Your task to perform on an android device: open app "Google Calendar" (install if not already installed) Image 0: 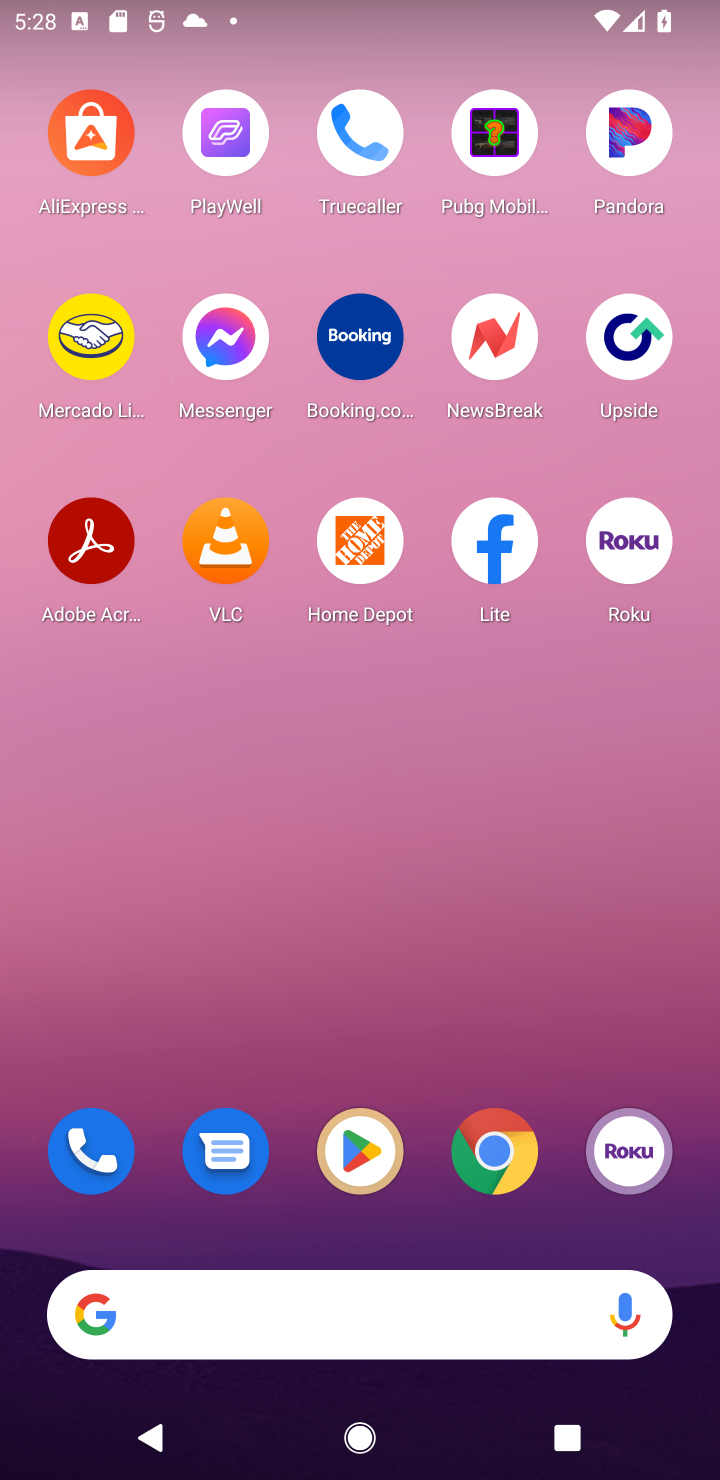
Step 0: press home button
Your task to perform on an android device: open app "Google Calendar" (install if not already installed) Image 1: 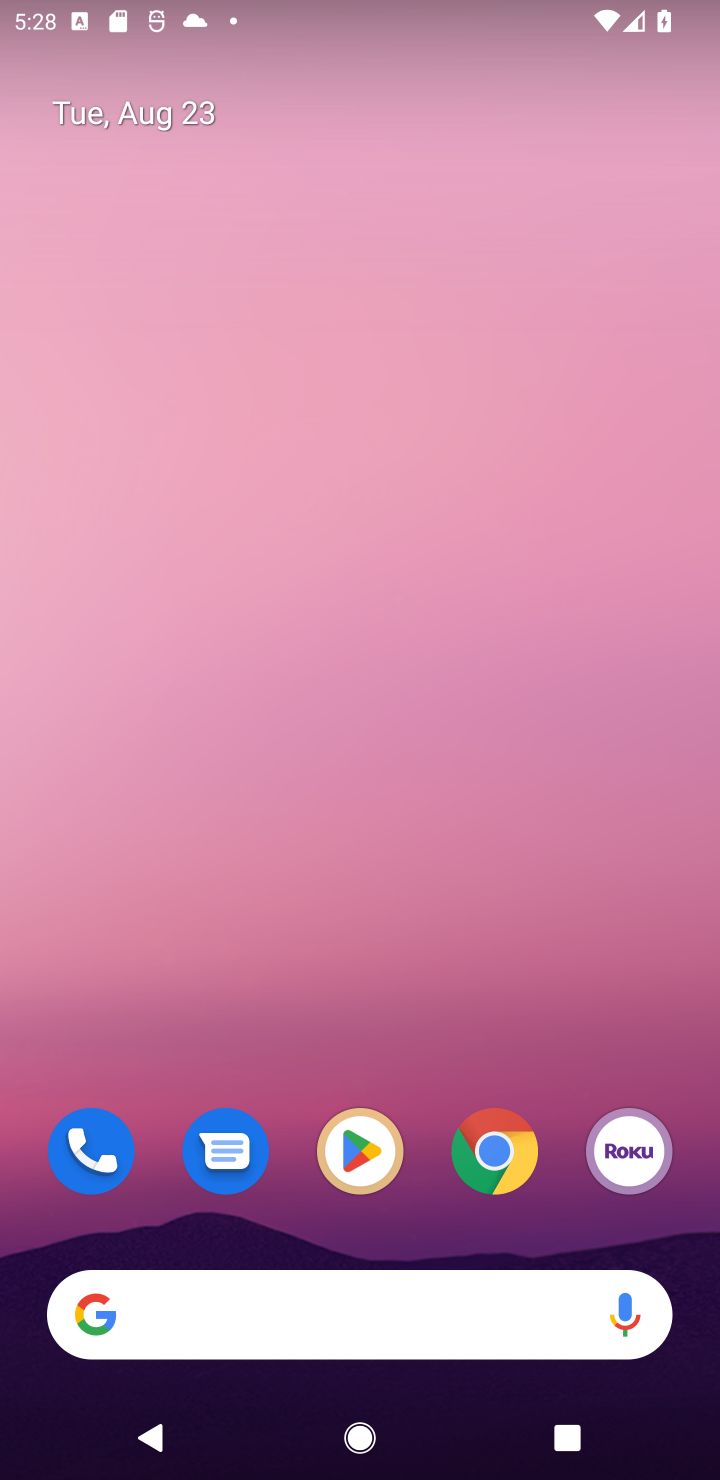
Step 1: click (358, 1148)
Your task to perform on an android device: open app "Google Calendar" (install if not already installed) Image 2: 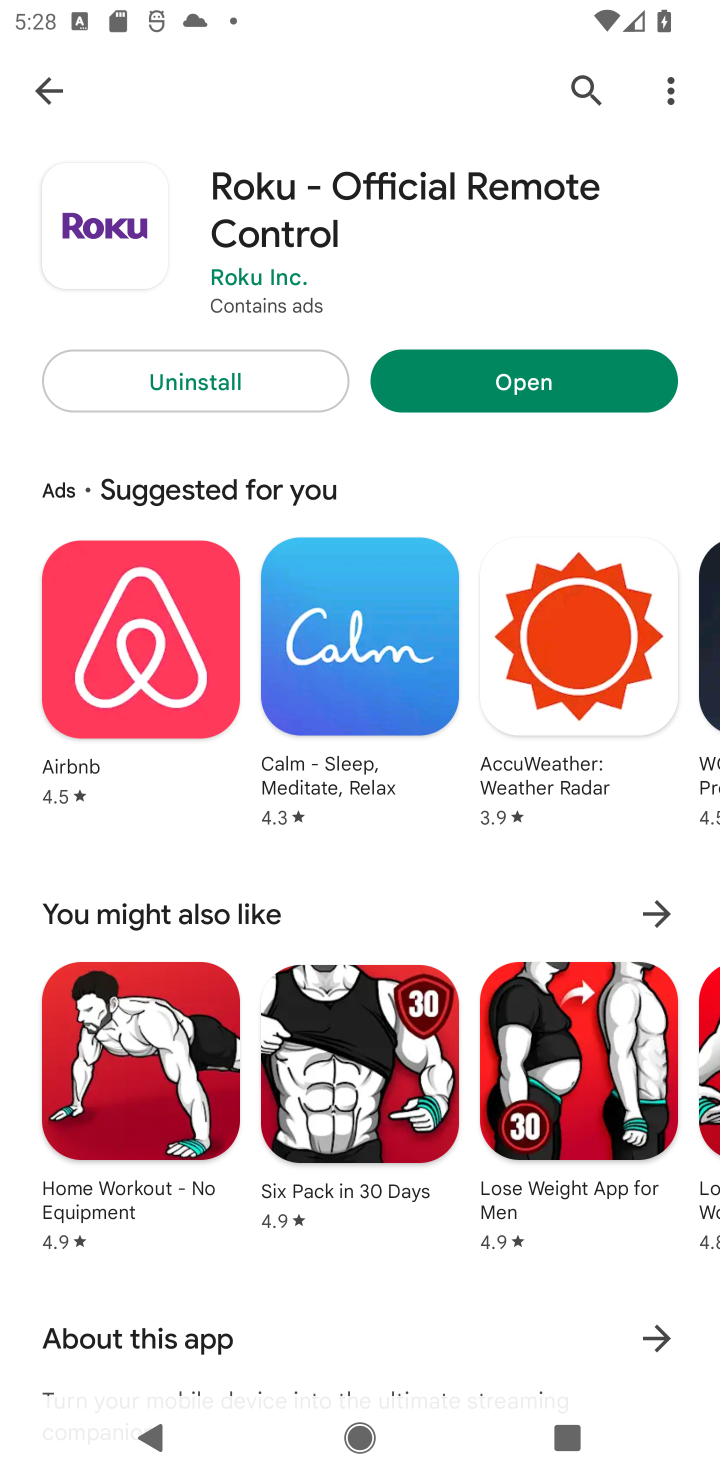
Step 2: click (579, 62)
Your task to perform on an android device: open app "Google Calendar" (install if not already installed) Image 3: 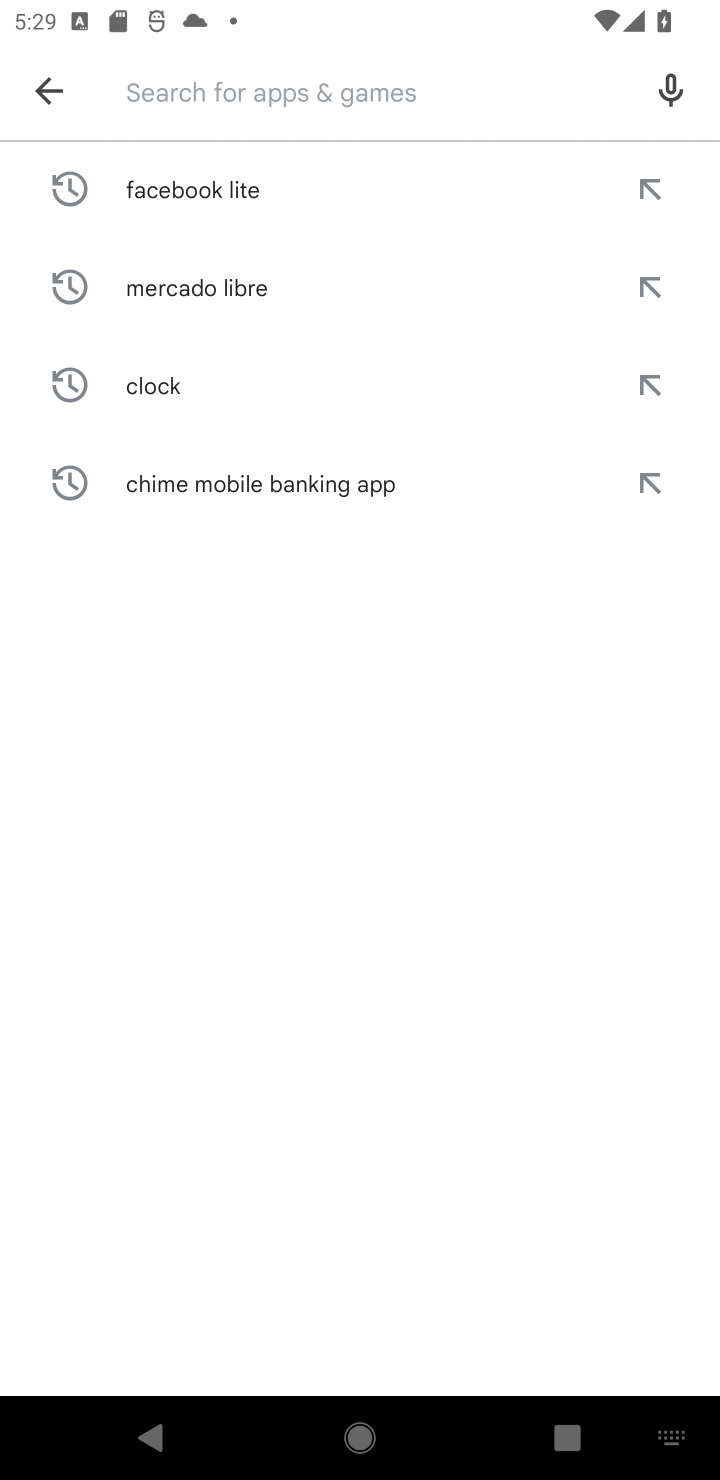
Step 3: type "Google Calendar"
Your task to perform on an android device: open app "Google Calendar" (install if not already installed) Image 4: 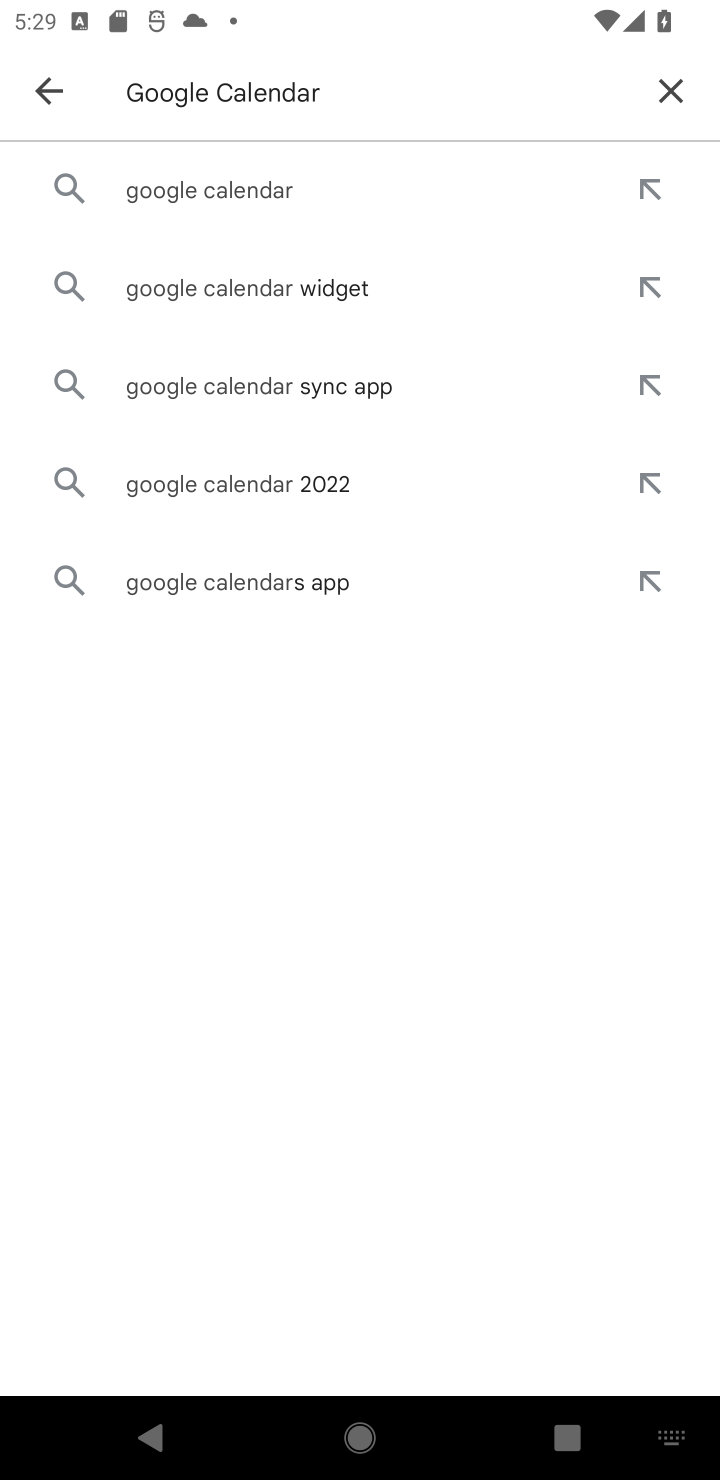
Step 4: click (283, 197)
Your task to perform on an android device: open app "Google Calendar" (install if not already installed) Image 5: 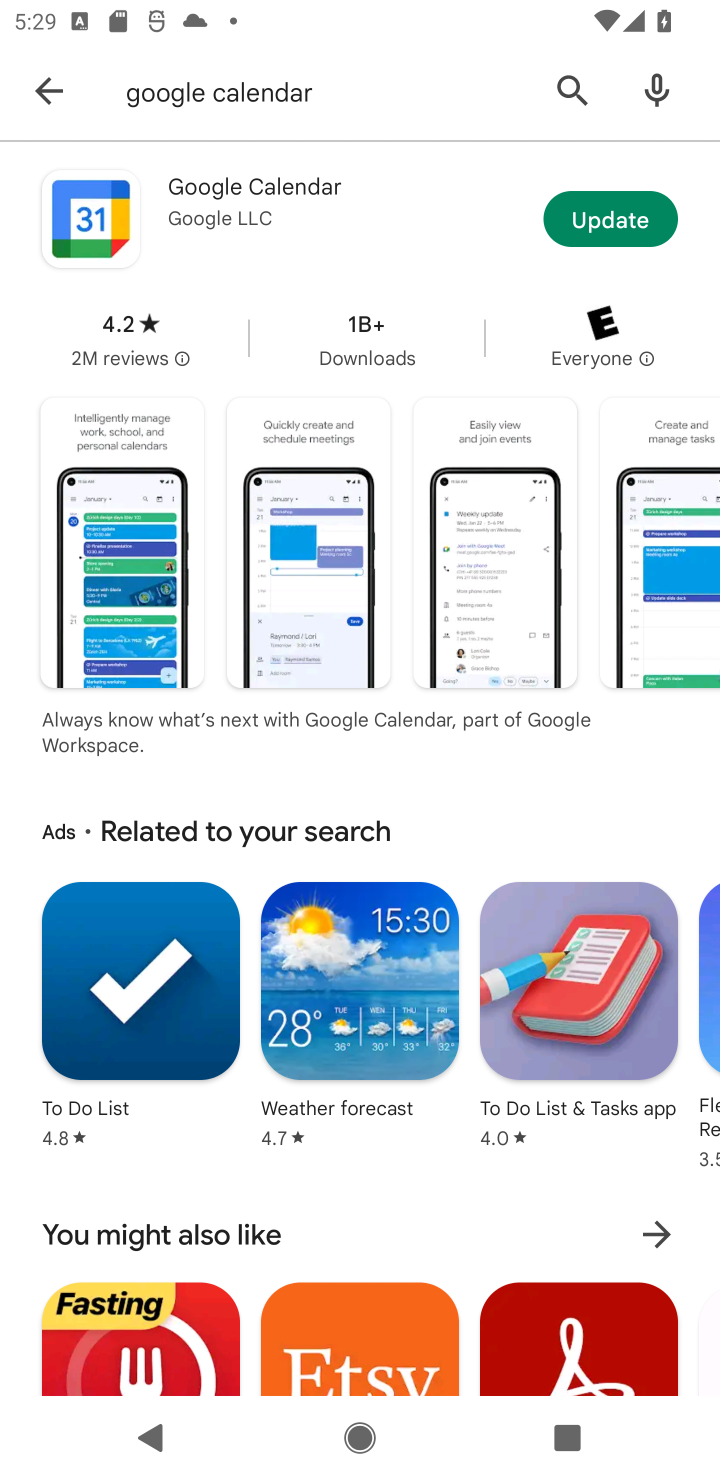
Step 5: click (199, 189)
Your task to perform on an android device: open app "Google Calendar" (install if not already installed) Image 6: 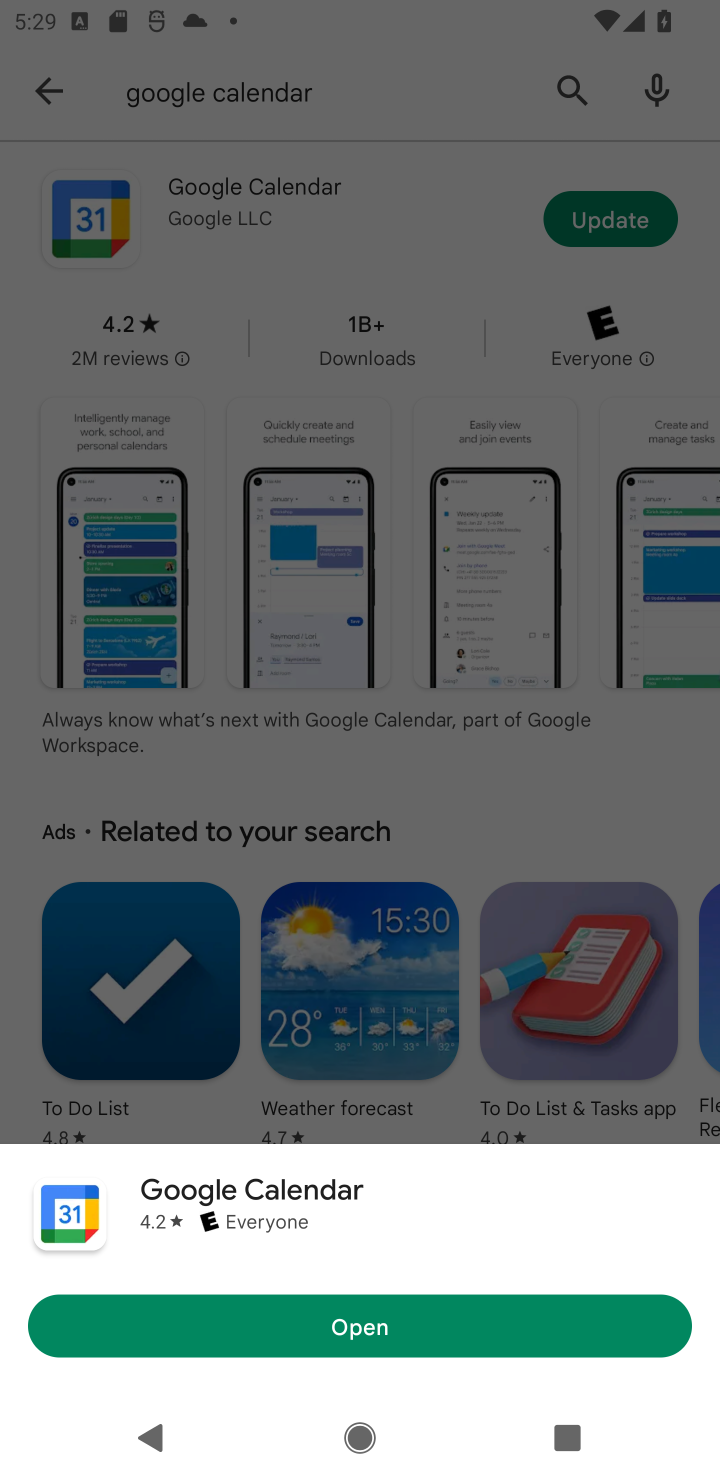
Step 6: click (387, 1330)
Your task to perform on an android device: open app "Google Calendar" (install if not already installed) Image 7: 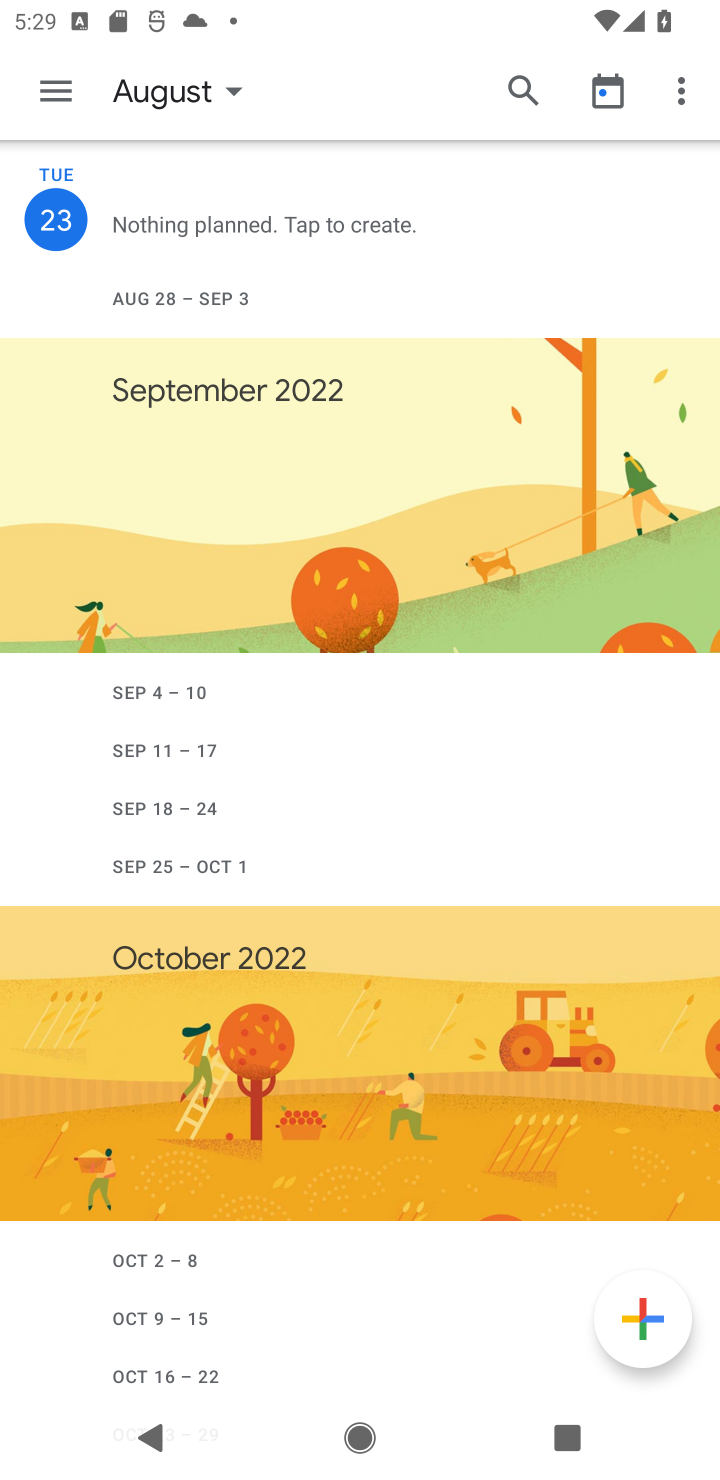
Step 7: task complete